Your task to perform on an android device: Show me recent news Image 0: 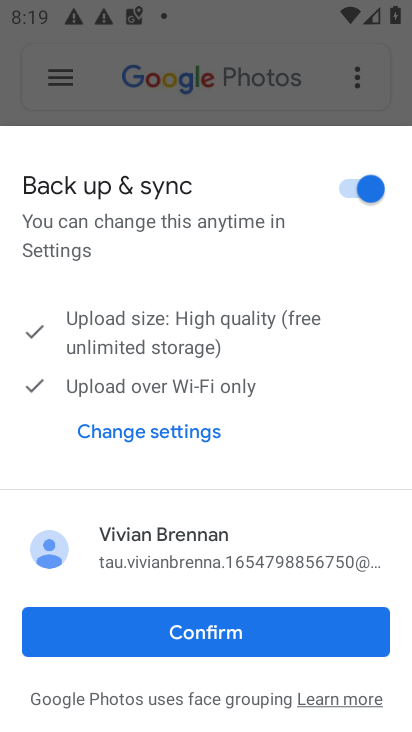
Step 0: press home button
Your task to perform on an android device: Show me recent news Image 1: 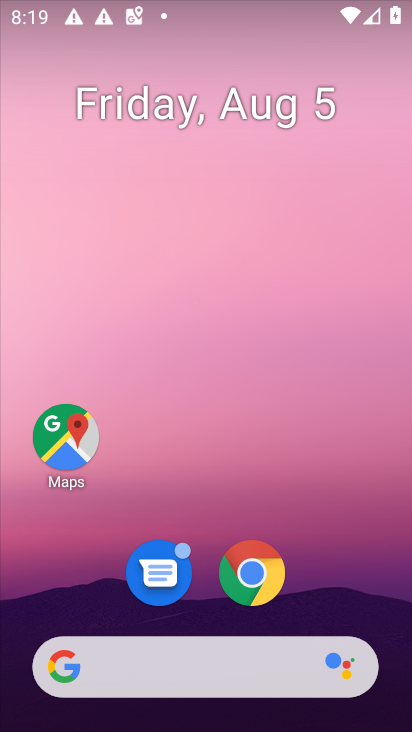
Step 1: drag from (177, 674) to (243, 192)
Your task to perform on an android device: Show me recent news Image 2: 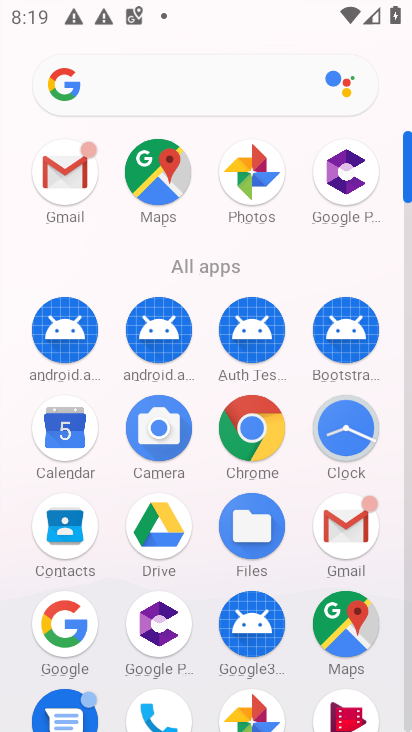
Step 2: click (61, 624)
Your task to perform on an android device: Show me recent news Image 3: 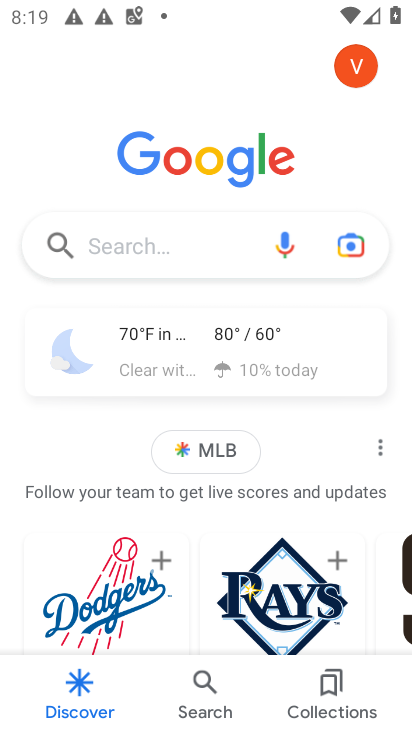
Step 3: click (175, 239)
Your task to perform on an android device: Show me recent news Image 4: 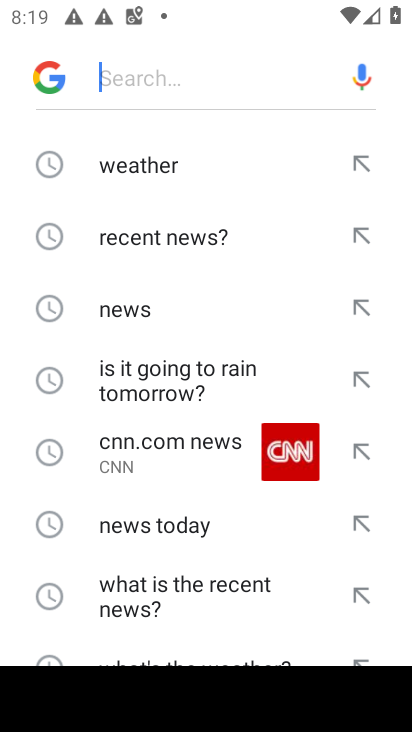
Step 4: click (177, 230)
Your task to perform on an android device: Show me recent news Image 5: 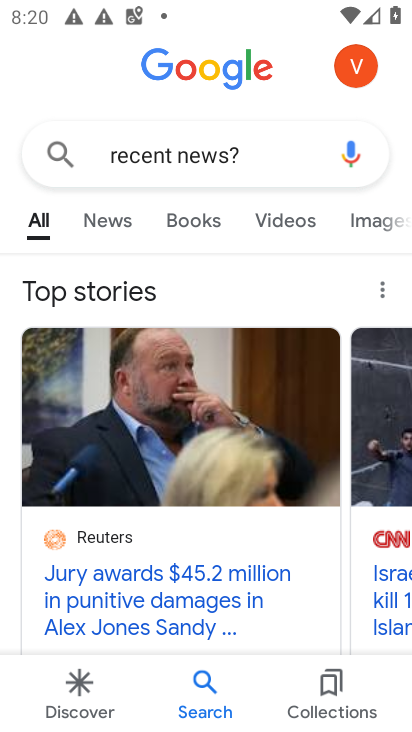
Step 5: click (204, 572)
Your task to perform on an android device: Show me recent news Image 6: 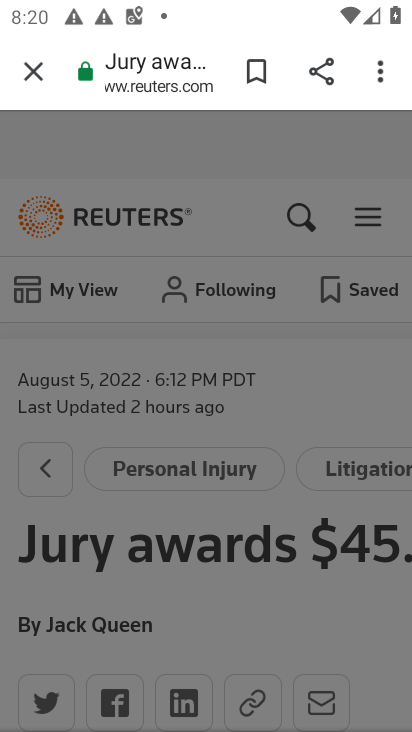
Step 6: task complete